Your task to perform on an android device: open app "The Home Depot" Image 0: 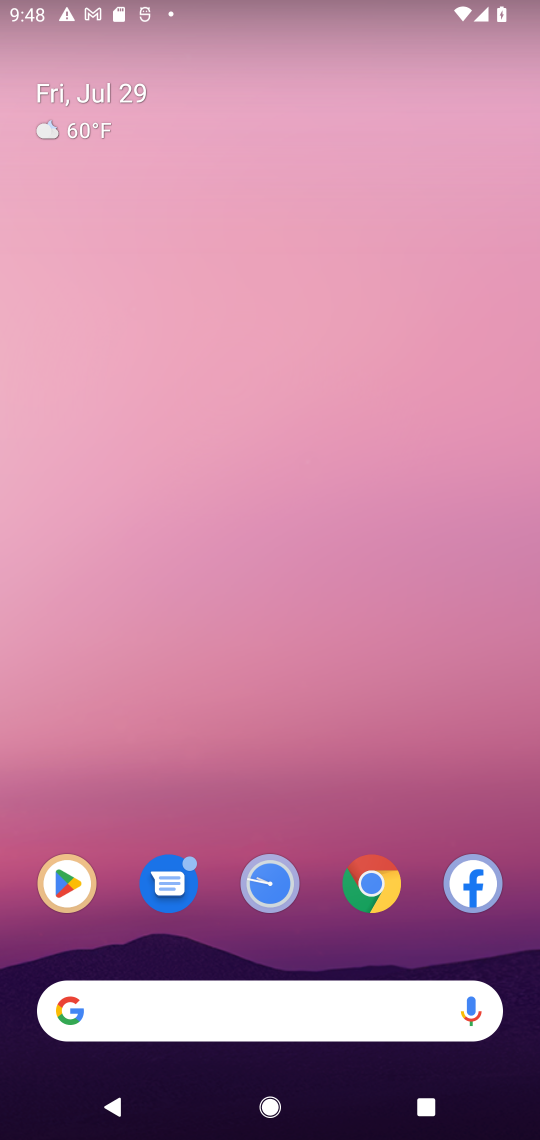
Step 0: click (56, 903)
Your task to perform on an android device: open app "The Home Depot" Image 1: 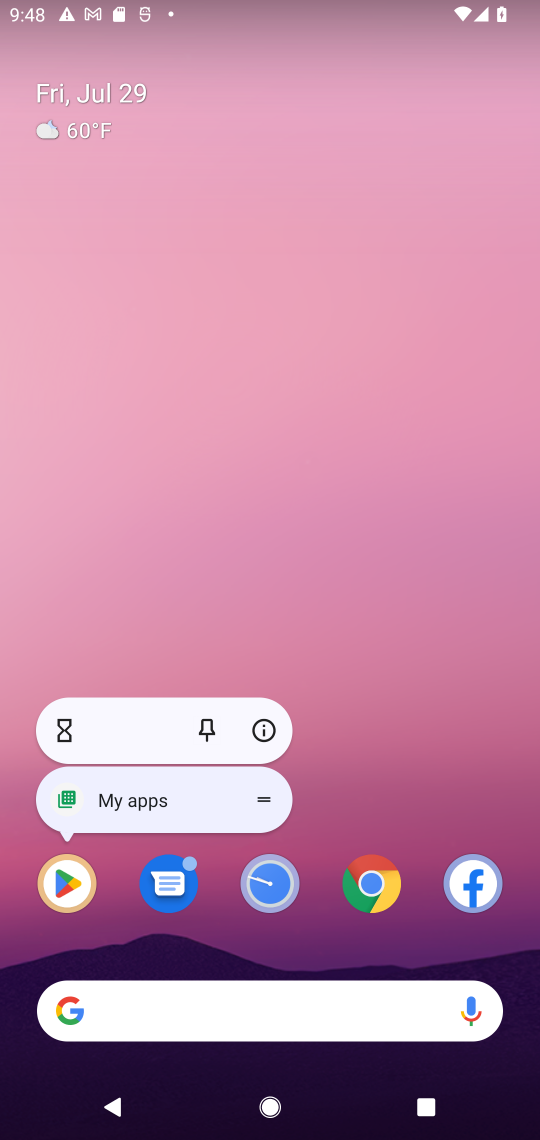
Step 1: click (63, 884)
Your task to perform on an android device: open app "The Home Depot" Image 2: 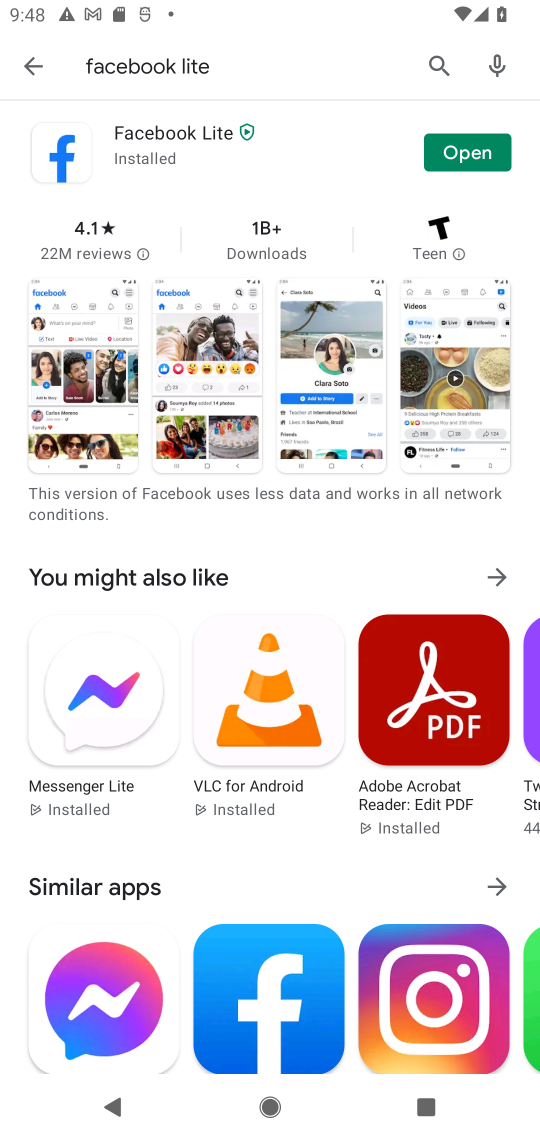
Step 2: click (254, 66)
Your task to perform on an android device: open app "The Home Depot" Image 3: 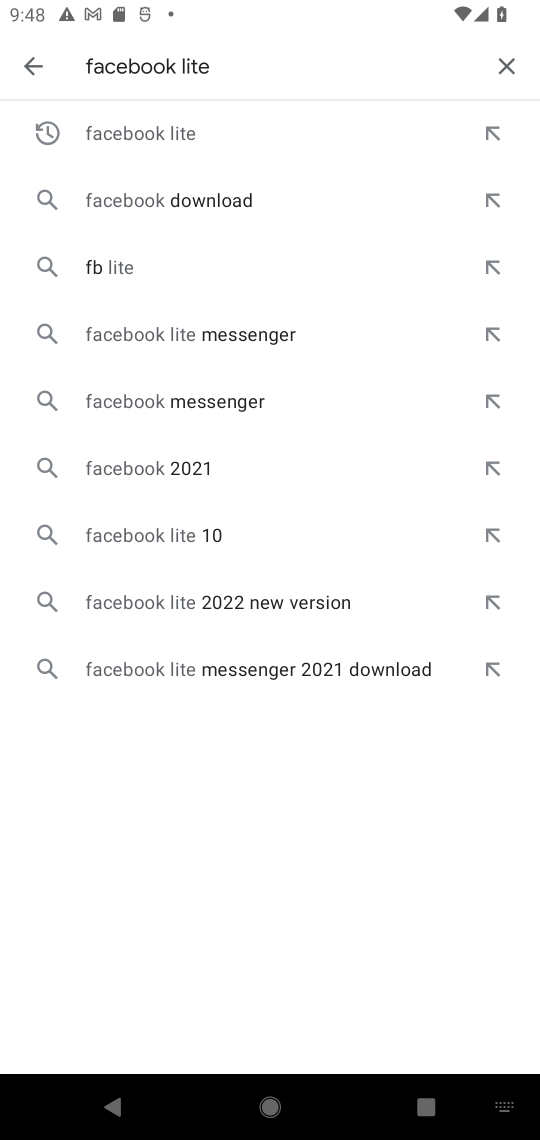
Step 3: click (506, 59)
Your task to perform on an android device: open app "The Home Depot" Image 4: 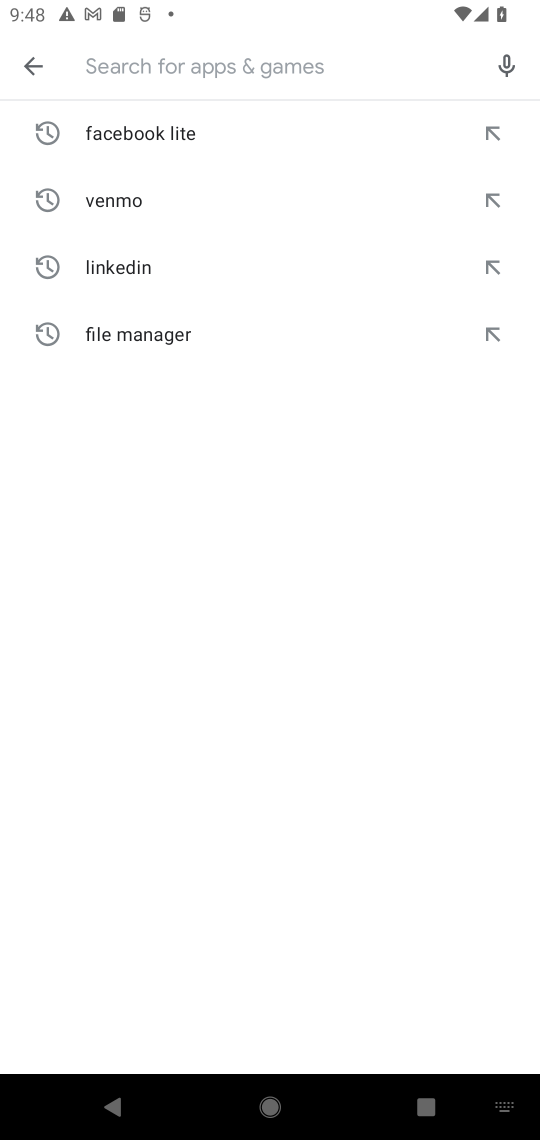
Step 4: type "The home depot"
Your task to perform on an android device: open app "The Home Depot" Image 5: 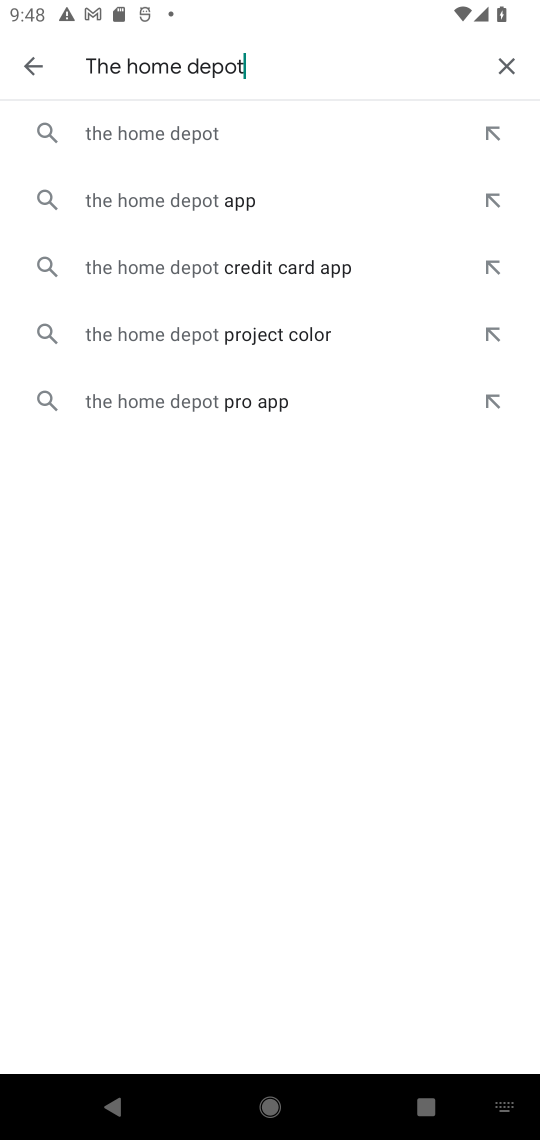
Step 5: click (223, 133)
Your task to perform on an android device: open app "The Home Depot" Image 6: 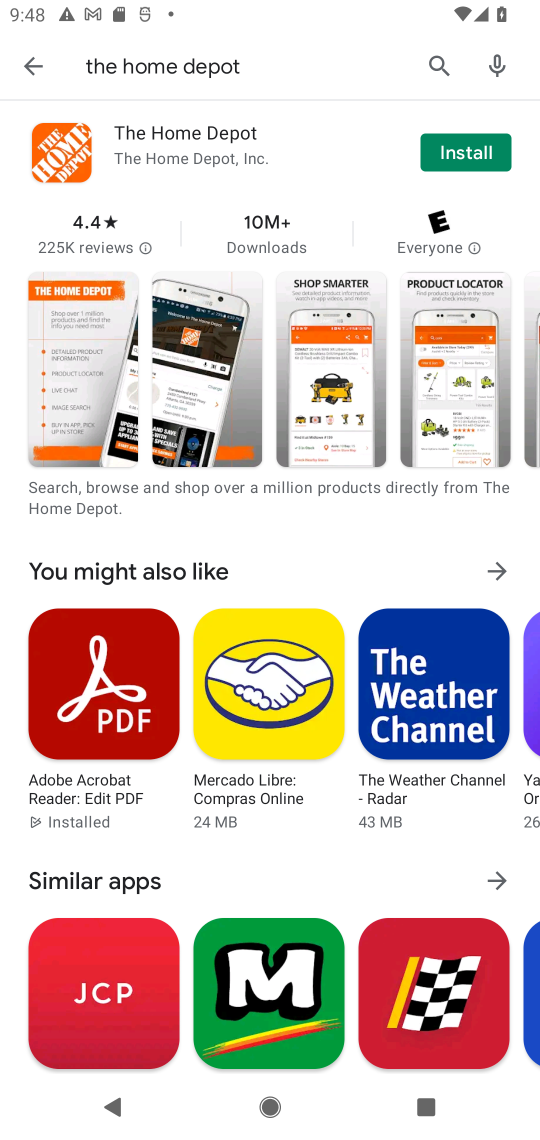
Step 6: task complete